Your task to perform on an android device: Open network settings Image 0: 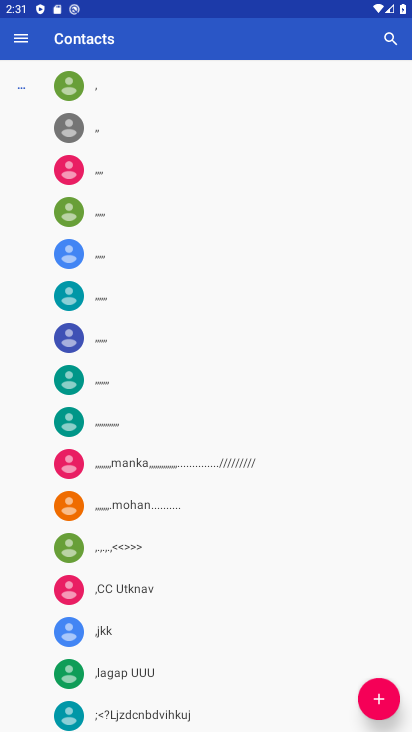
Step 0: press home button
Your task to perform on an android device: Open network settings Image 1: 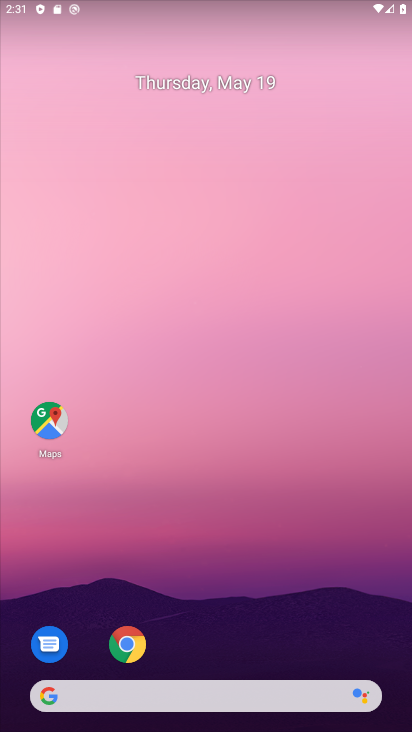
Step 1: drag from (262, 620) to (272, 92)
Your task to perform on an android device: Open network settings Image 2: 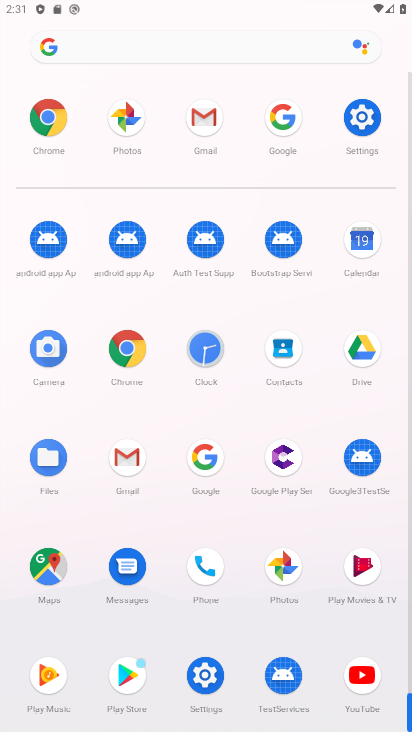
Step 2: click (354, 114)
Your task to perform on an android device: Open network settings Image 3: 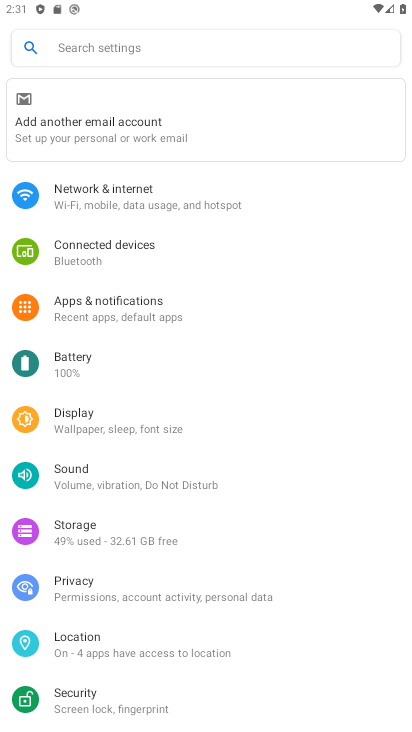
Step 3: click (274, 206)
Your task to perform on an android device: Open network settings Image 4: 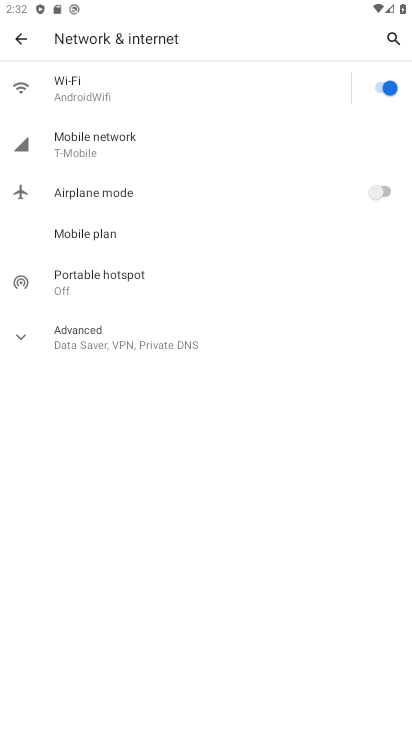
Step 4: task complete